Your task to perform on an android device: turn notification dots on Image 0: 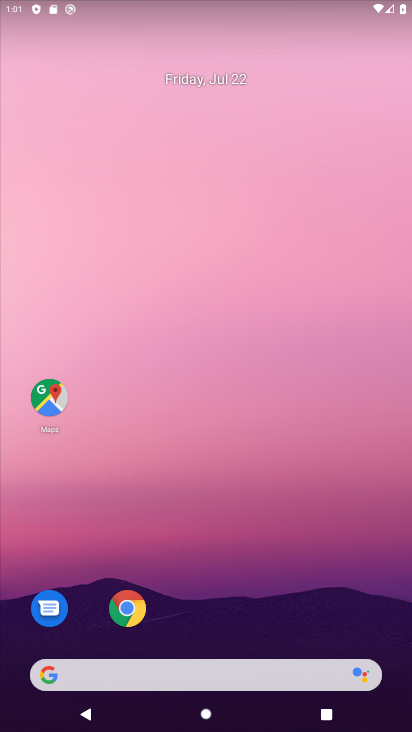
Step 0: drag from (391, 708) to (271, 51)
Your task to perform on an android device: turn notification dots on Image 1: 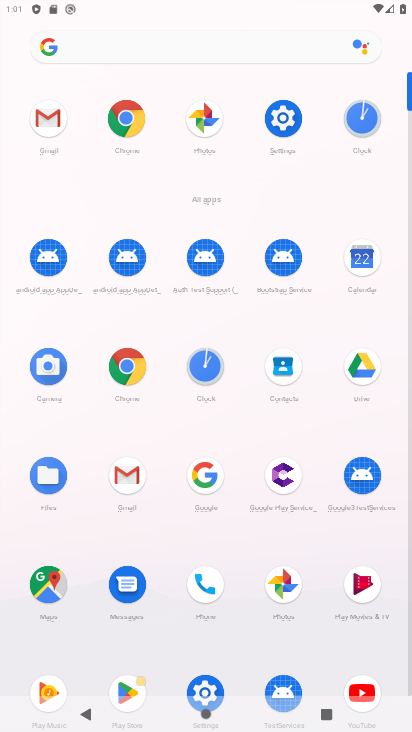
Step 1: click (283, 110)
Your task to perform on an android device: turn notification dots on Image 2: 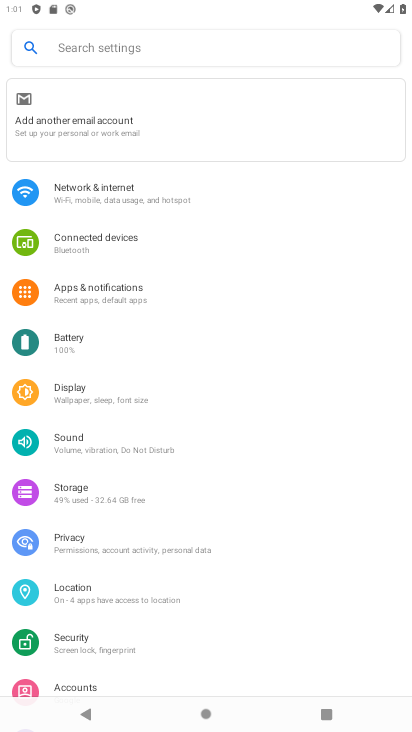
Step 2: click (88, 293)
Your task to perform on an android device: turn notification dots on Image 3: 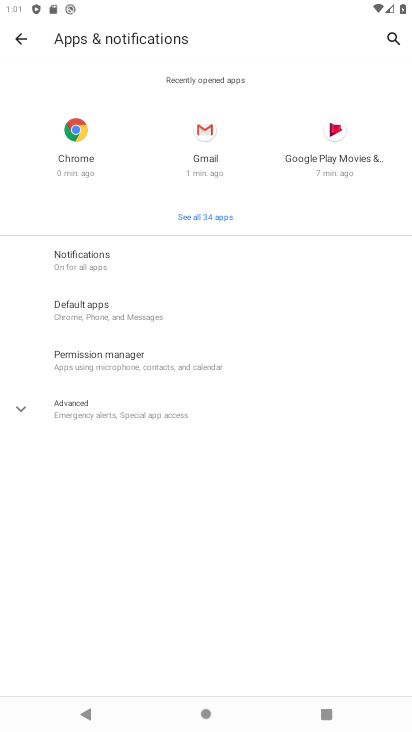
Step 3: click (20, 411)
Your task to perform on an android device: turn notification dots on Image 4: 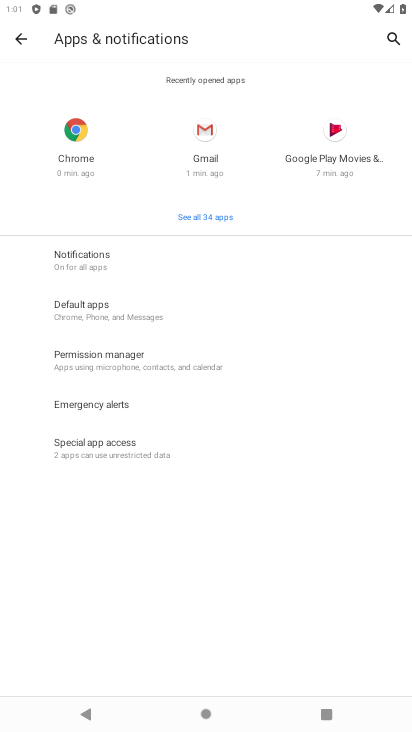
Step 4: click (87, 263)
Your task to perform on an android device: turn notification dots on Image 5: 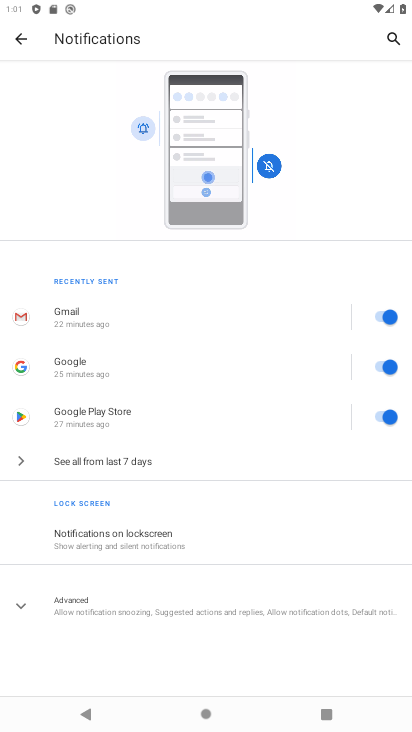
Step 5: drag from (213, 573) to (221, 309)
Your task to perform on an android device: turn notification dots on Image 6: 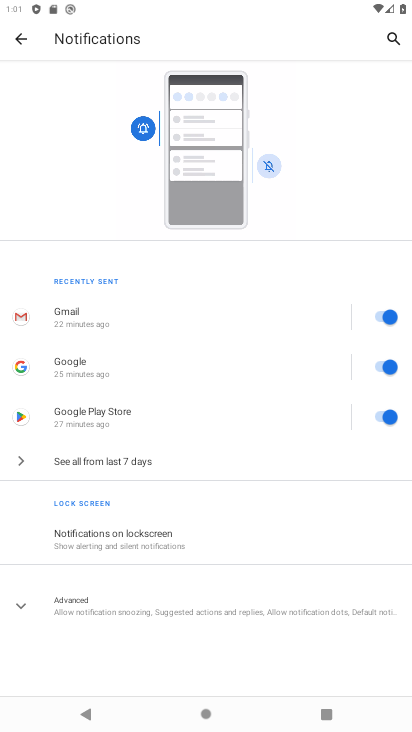
Step 6: click (19, 603)
Your task to perform on an android device: turn notification dots on Image 7: 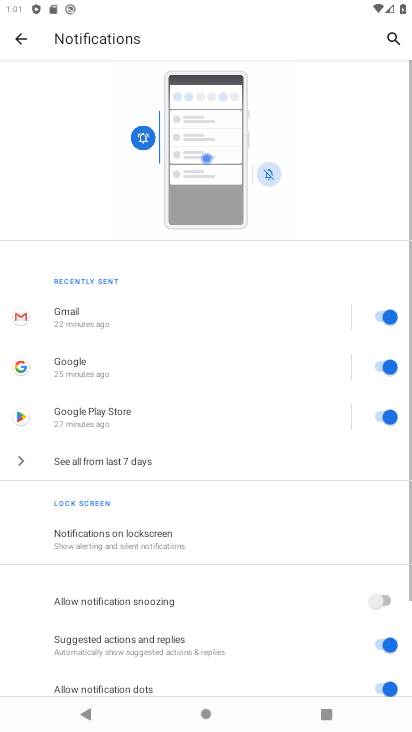
Step 7: task complete